Your task to perform on an android device: turn off priority inbox in the gmail app Image 0: 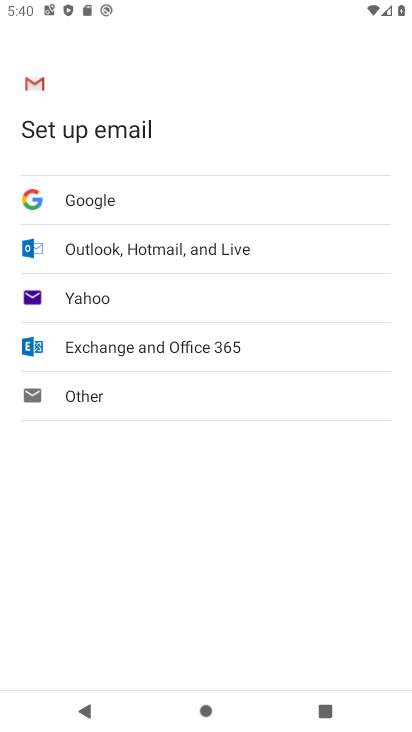
Step 0: press home button
Your task to perform on an android device: turn off priority inbox in the gmail app Image 1: 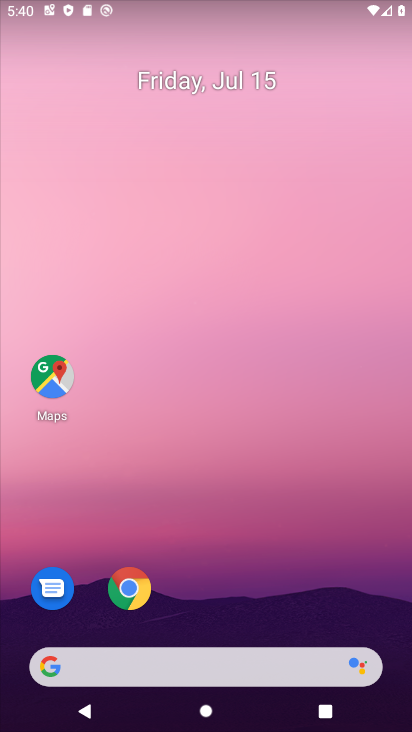
Step 1: drag from (205, 557) to (172, 0)
Your task to perform on an android device: turn off priority inbox in the gmail app Image 2: 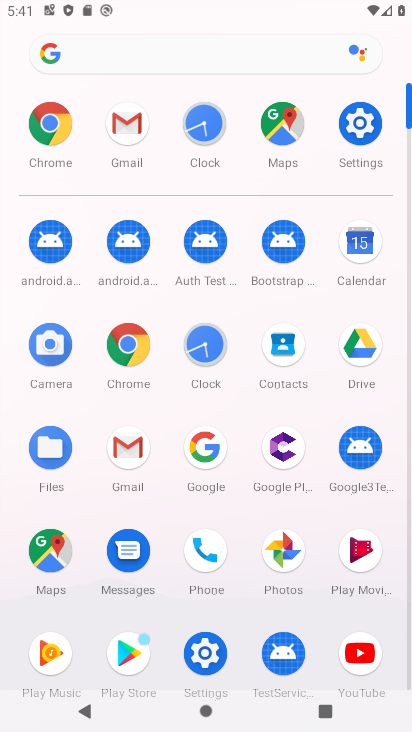
Step 2: click (364, 121)
Your task to perform on an android device: turn off priority inbox in the gmail app Image 3: 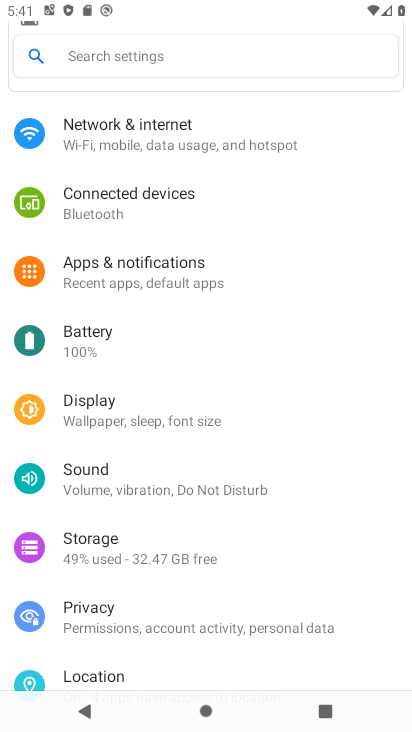
Step 3: drag from (144, 672) to (231, 96)
Your task to perform on an android device: turn off priority inbox in the gmail app Image 4: 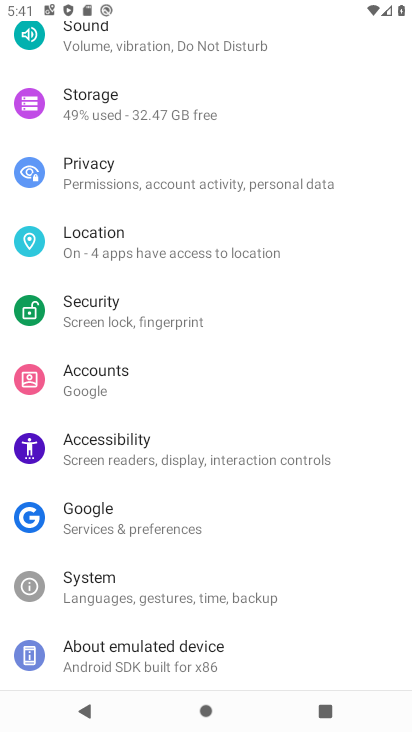
Step 4: press home button
Your task to perform on an android device: turn off priority inbox in the gmail app Image 5: 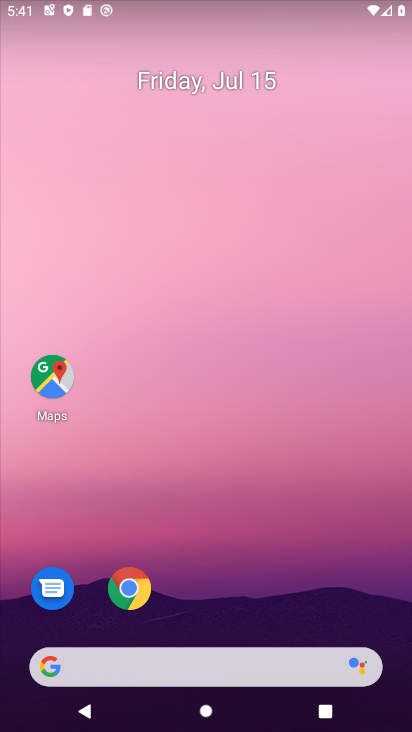
Step 5: drag from (318, 664) to (321, 6)
Your task to perform on an android device: turn off priority inbox in the gmail app Image 6: 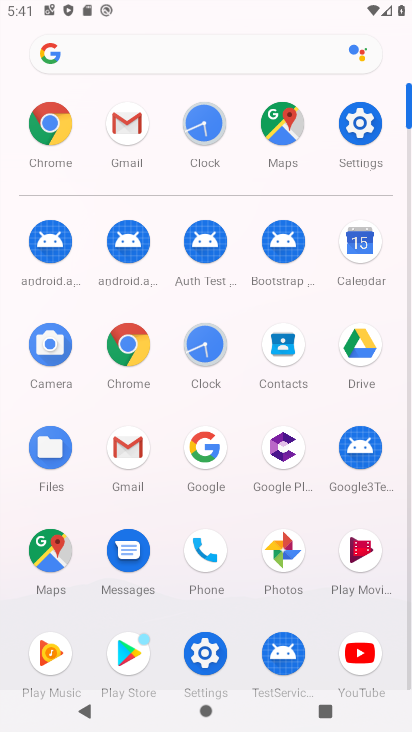
Step 6: click (128, 445)
Your task to perform on an android device: turn off priority inbox in the gmail app Image 7: 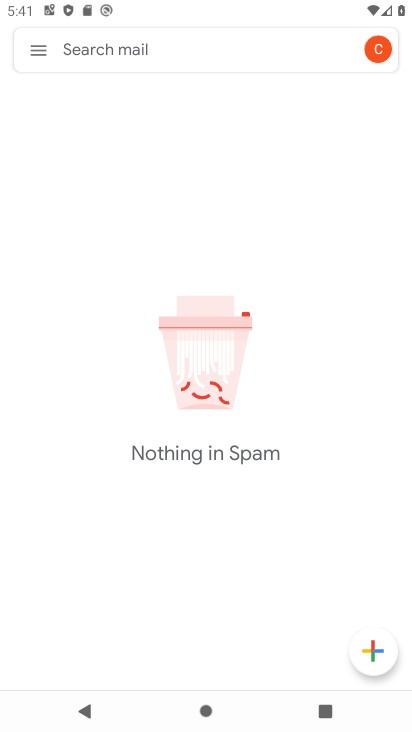
Step 7: click (43, 50)
Your task to perform on an android device: turn off priority inbox in the gmail app Image 8: 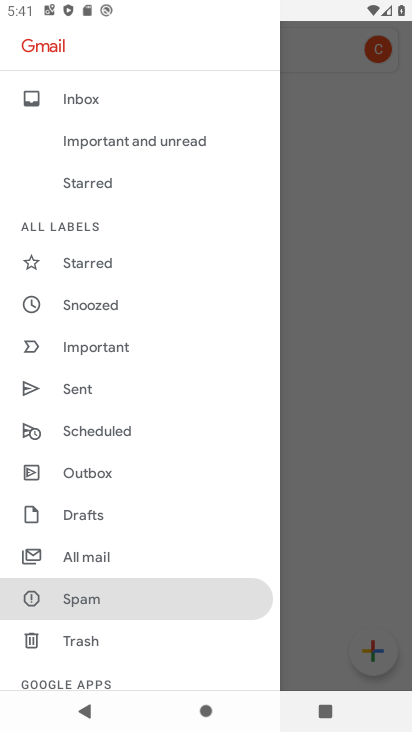
Step 8: drag from (133, 648) to (161, 257)
Your task to perform on an android device: turn off priority inbox in the gmail app Image 9: 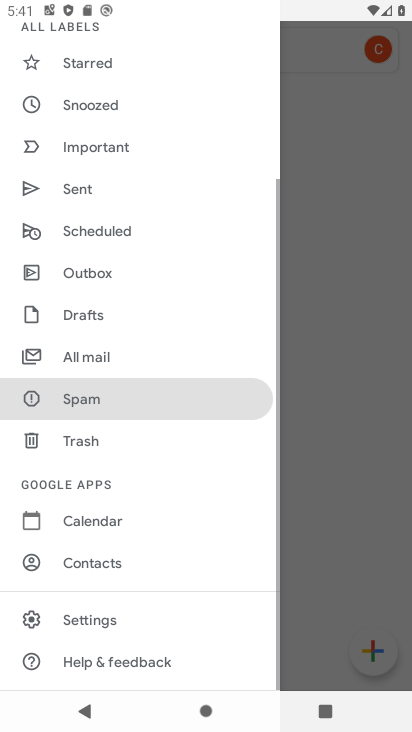
Step 9: click (115, 625)
Your task to perform on an android device: turn off priority inbox in the gmail app Image 10: 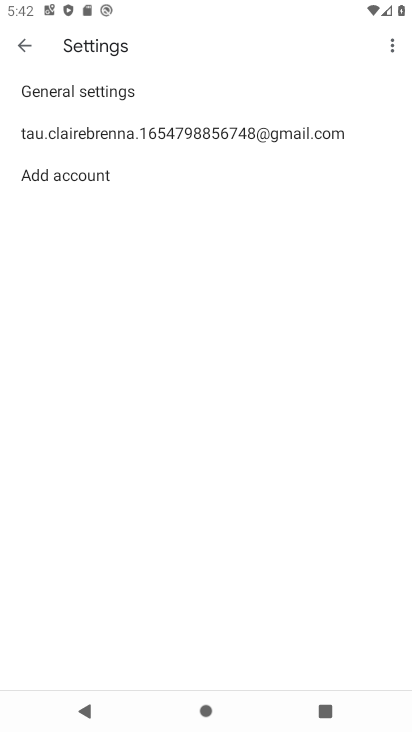
Step 10: click (103, 143)
Your task to perform on an android device: turn off priority inbox in the gmail app Image 11: 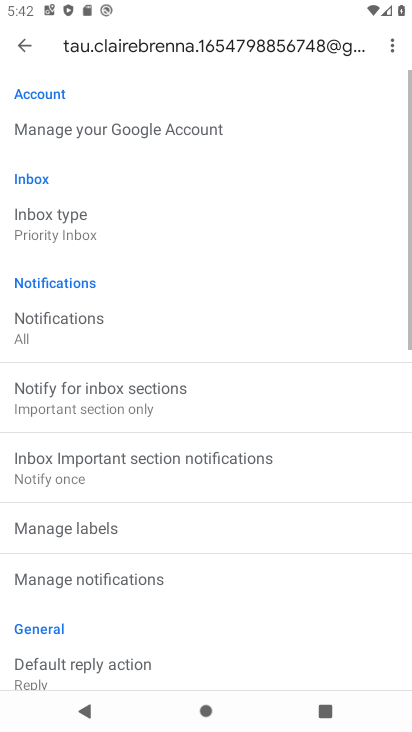
Step 11: click (80, 215)
Your task to perform on an android device: turn off priority inbox in the gmail app Image 12: 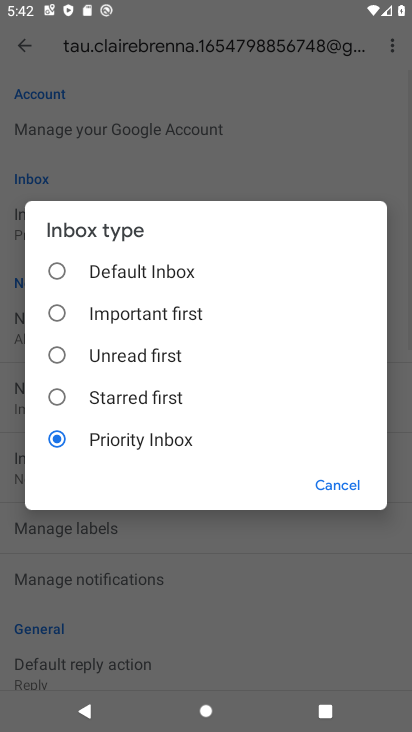
Step 12: click (58, 265)
Your task to perform on an android device: turn off priority inbox in the gmail app Image 13: 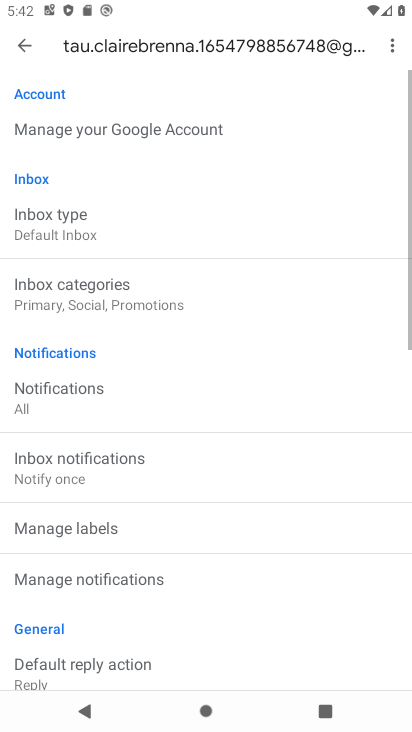
Step 13: task complete